Your task to perform on an android device: Google the capital of Ecuador Image 0: 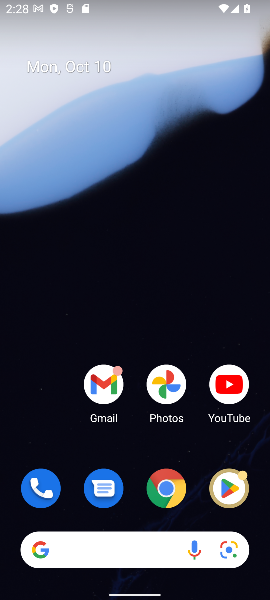
Step 0: drag from (133, 486) to (268, 158)
Your task to perform on an android device: Google the capital of Ecuador Image 1: 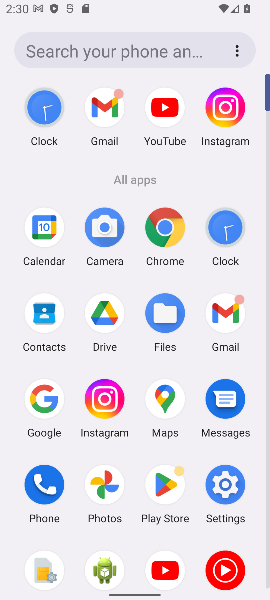
Step 1: click (43, 411)
Your task to perform on an android device: Google the capital of Ecuador Image 2: 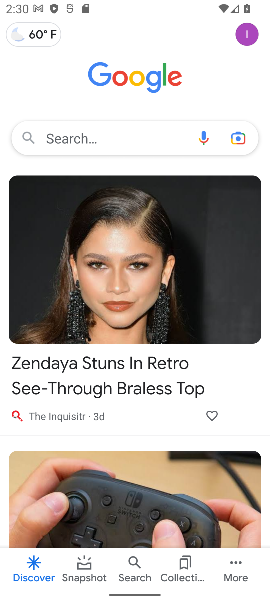
Step 2: click (91, 134)
Your task to perform on an android device: Google the capital of Ecuador Image 3: 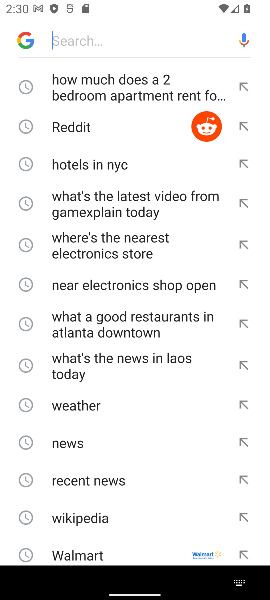
Step 3: click (95, 32)
Your task to perform on an android device: Google the capital of Ecuador Image 4: 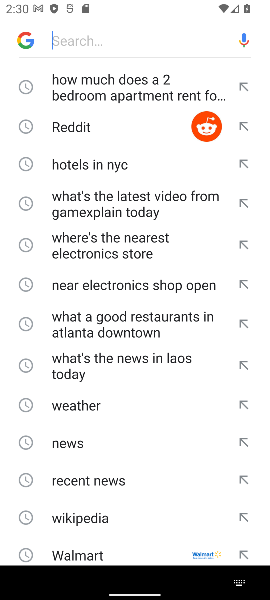
Step 4: type "capital of Ecuador"
Your task to perform on an android device: Google the capital of Ecuador Image 5: 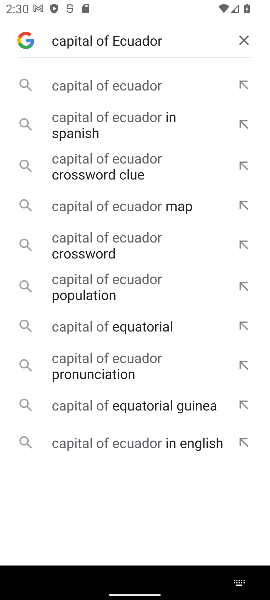
Step 5: click (113, 77)
Your task to perform on an android device: Google the capital of Ecuador Image 6: 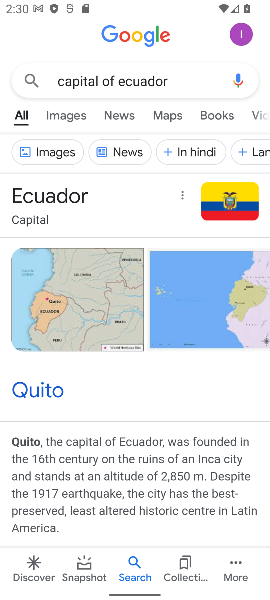
Step 6: task complete